Your task to perform on an android device: search for starred emails in the gmail app Image 0: 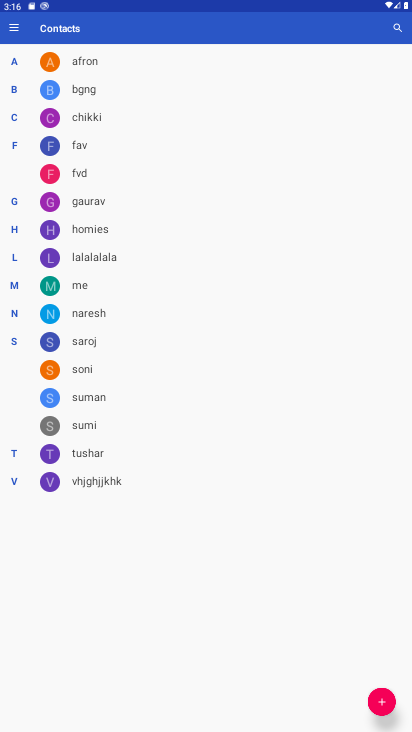
Step 0: press home button
Your task to perform on an android device: search for starred emails in the gmail app Image 1: 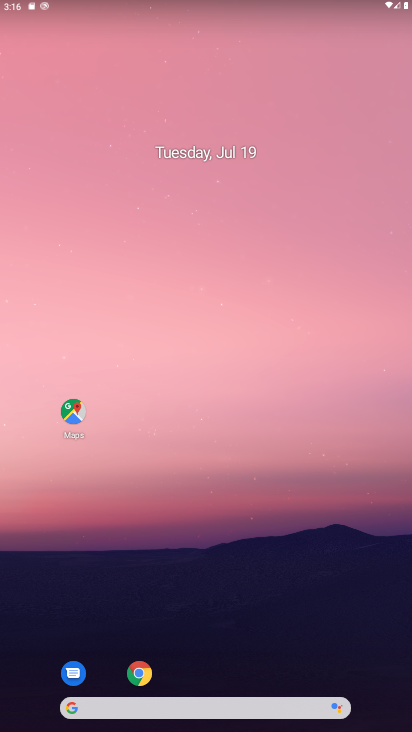
Step 1: drag from (153, 649) to (277, 47)
Your task to perform on an android device: search for starred emails in the gmail app Image 2: 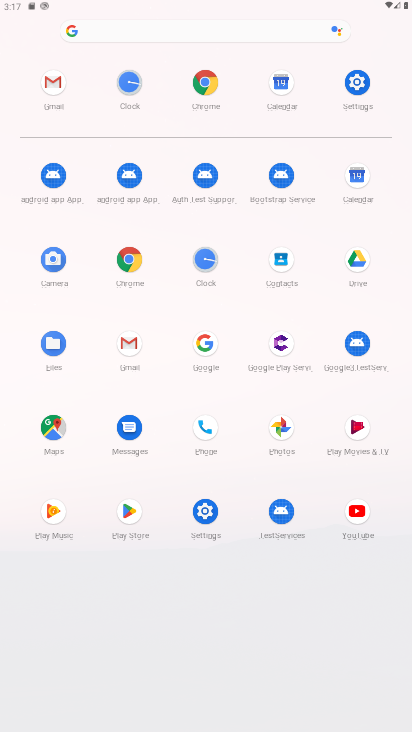
Step 2: click (122, 354)
Your task to perform on an android device: search for starred emails in the gmail app Image 3: 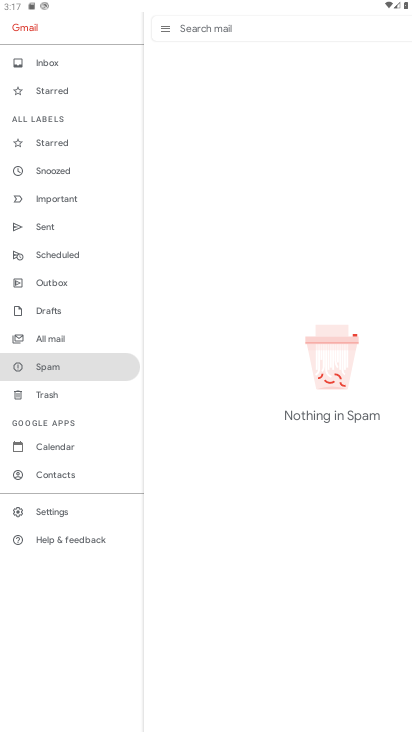
Step 3: click (66, 143)
Your task to perform on an android device: search for starred emails in the gmail app Image 4: 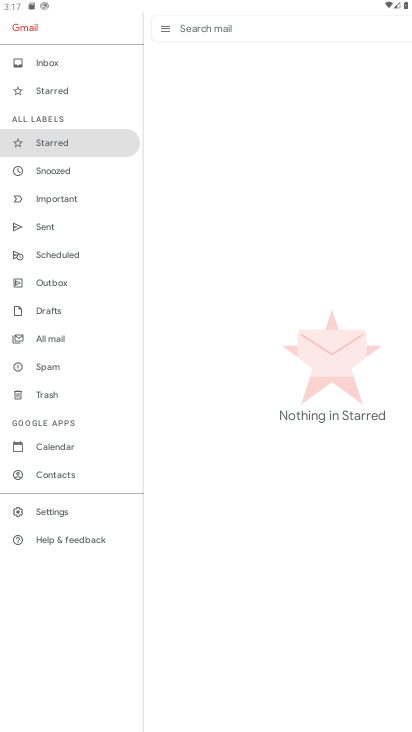
Step 4: task complete